Your task to perform on an android device: snooze an email in the gmail app Image 0: 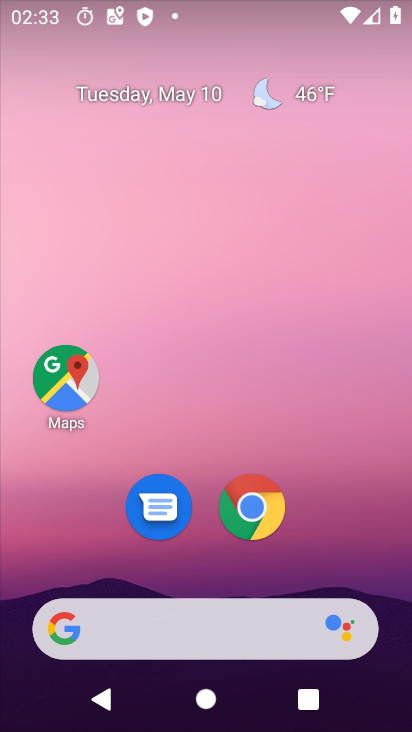
Step 0: drag from (266, 669) to (254, 153)
Your task to perform on an android device: snooze an email in the gmail app Image 1: 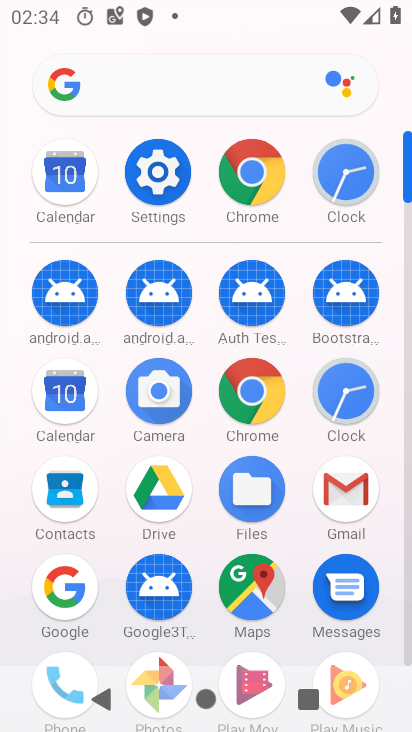
Step 1: click (350, 498)
Your task to perform on an android device: snooze an email in the gmail app Image 2: 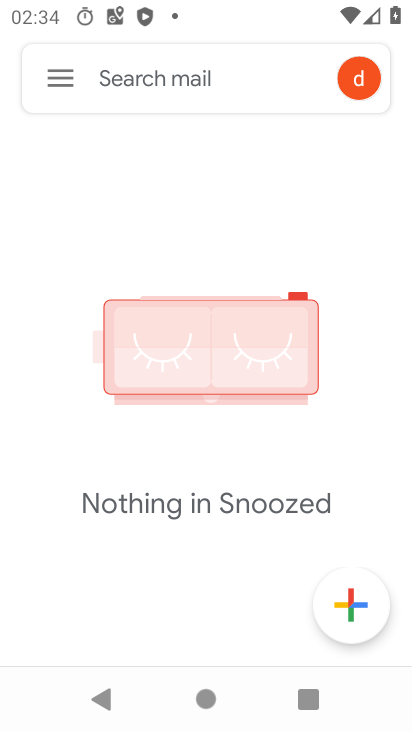
Step 2: click (59, 84)
Your task to perform on an android device: snooze an email in the gmail app Image 3: 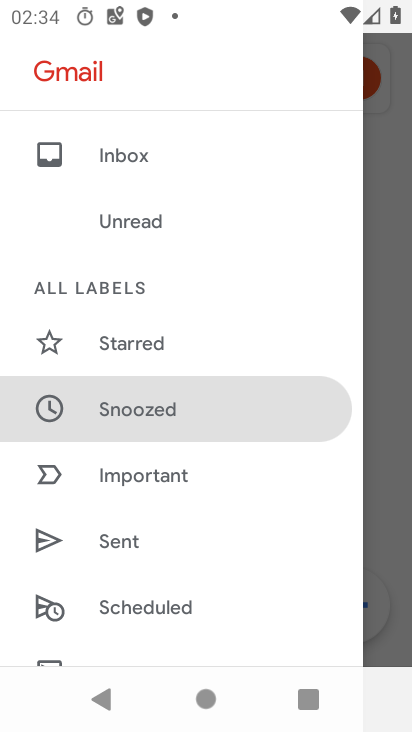
Step 3: click (118, 408)
Your task to perform on an android device: snooze an email in the gmail app Image 4: 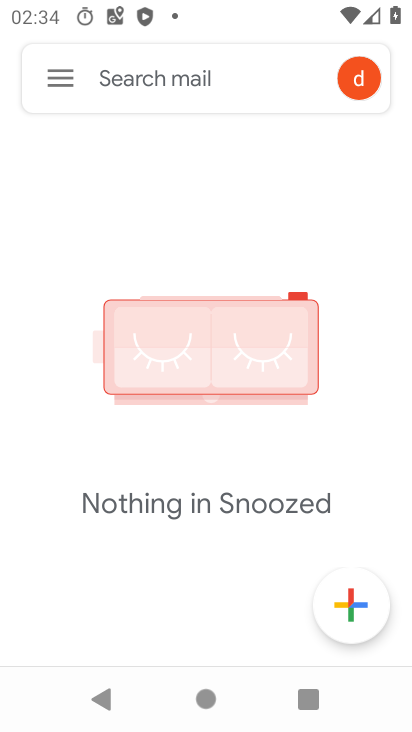
Step 4: task complete